Your task to perform on an android device: Open wifi settings Image 0: 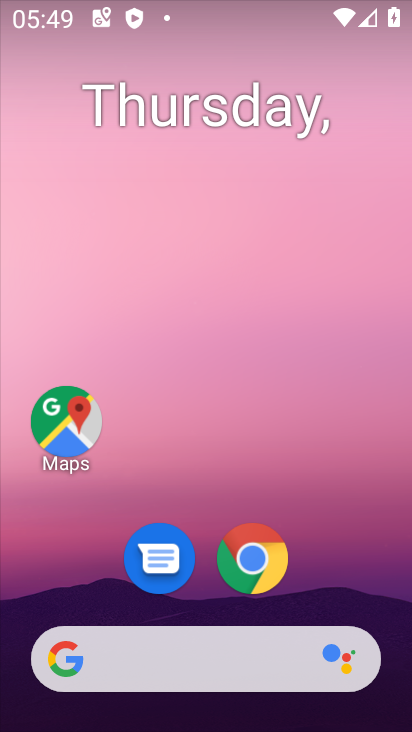
Step 0: click (352, 358)
Your task to perform on an android device: Open wifi settings Image 1: 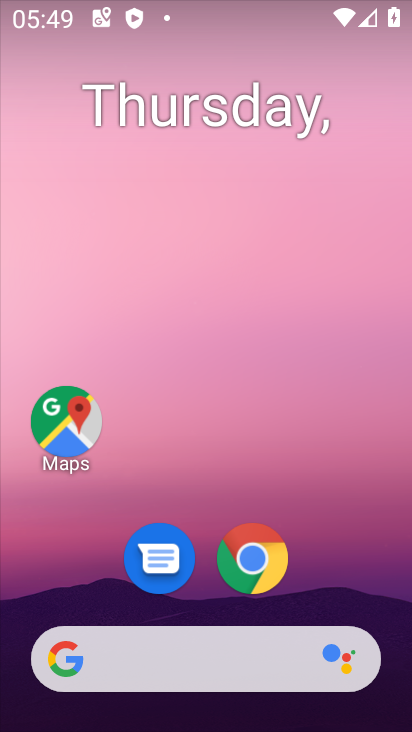
Step 1: drag from (330, 578) to (322, 72)
Your task to perform on an android device: Open wifi settings Image 2: 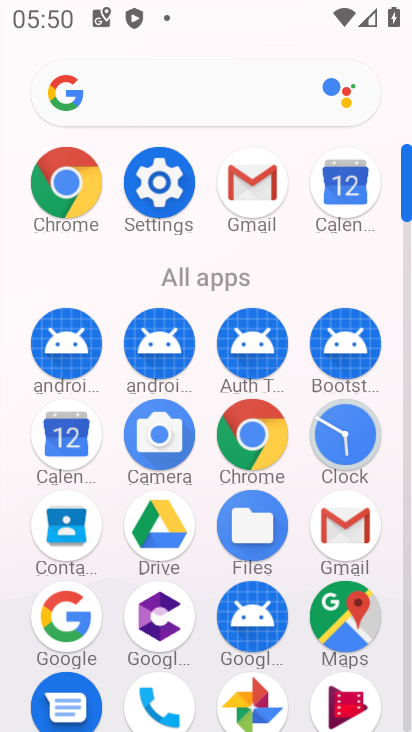
Step 2: click (164, 185)
Your task to perform on an android device: Open wifi settings Image 3: 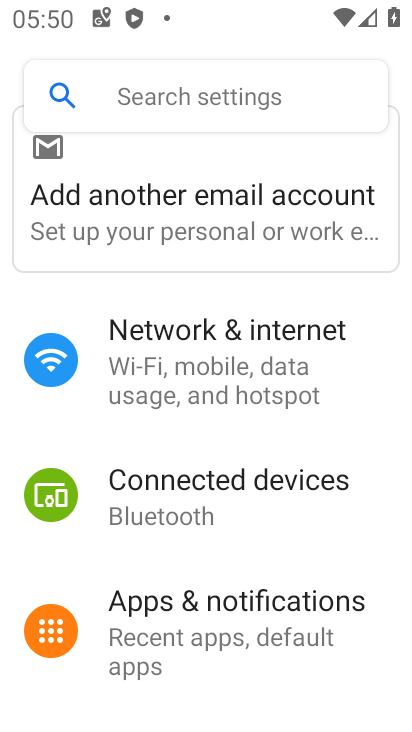
Step 3: click (199, 363)
Your task to perform on an android device: Open wifi settings Image 4: 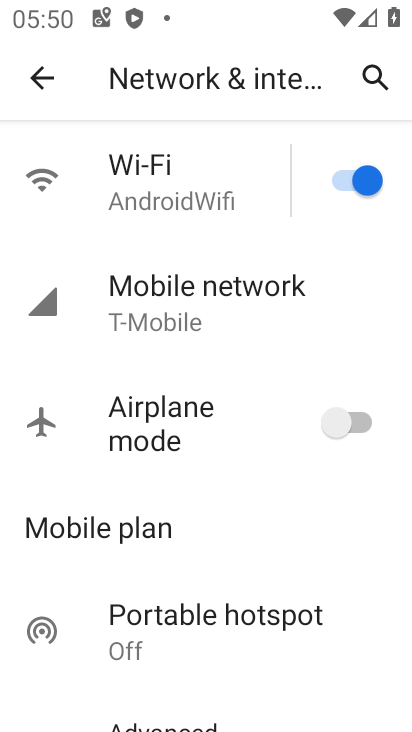
Step 4: click (204, 191)
Your task to perform on an android device: Open wifi settings Image 5: 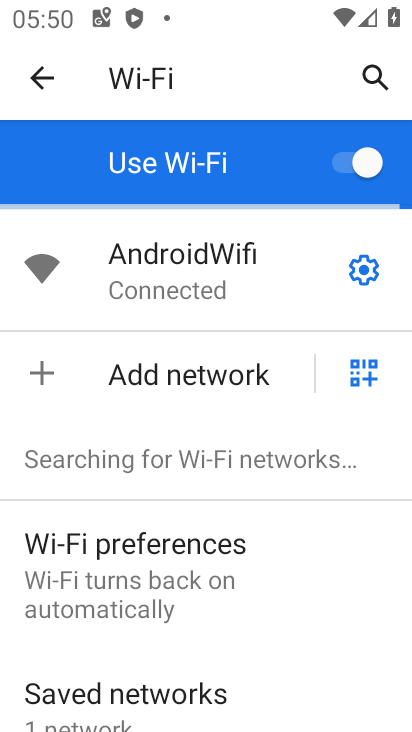
Step 5: task complete